Your task to perform on an android device: turn off improve location accuracy Image 0: 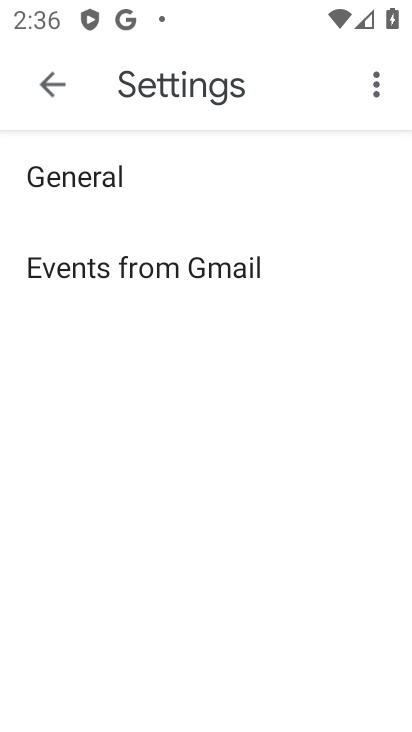
Step 0: press back button
Your task to perform on an android device: turn off improve location accuracy Image 1: 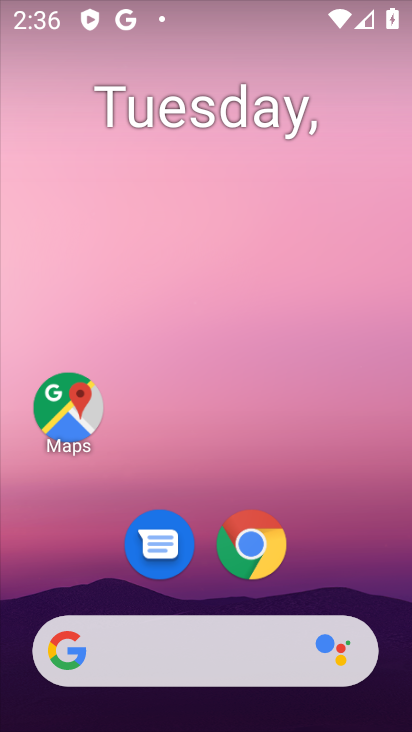
Step 1: drag from (218, 607) to (323, 23)
Your task to perform on an android device: turn off improve location accuracy Image 2: 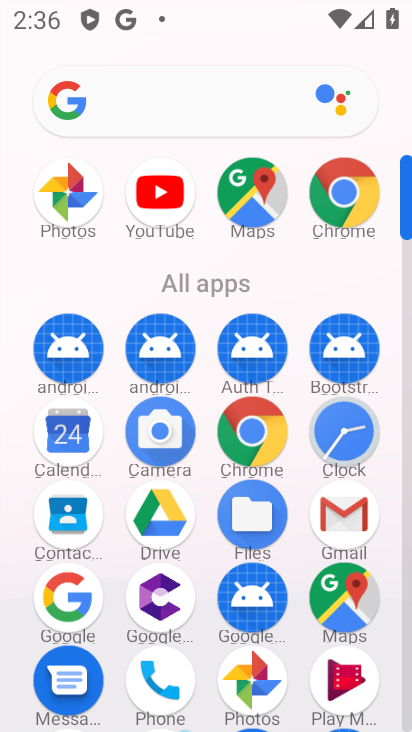
Step 2: drag from (177, 636) to (324, 99)
Your task to perform on an android device: turn off improve location accuracy Image 3: 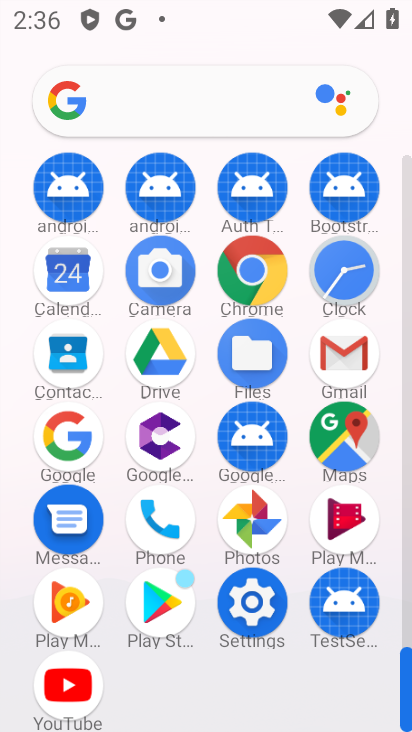
Step 3: click (247, 607)
Your task to perform on an android device: turn off improve location accuracy Image 4: 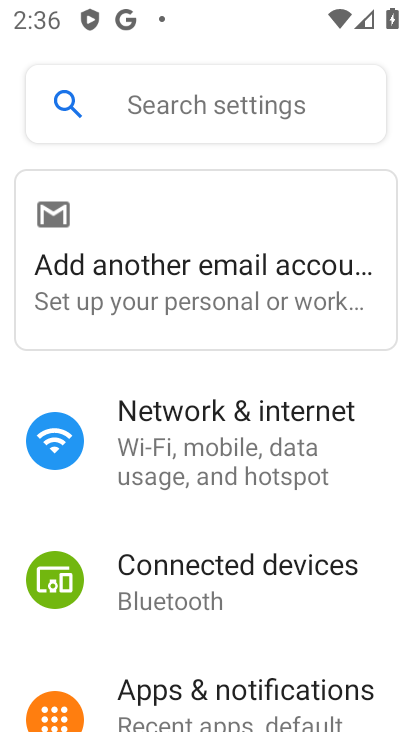
Step 4: drag from (157, 690) to (326, 89)
Your task to perform on an android device: turn off improve location accuracy Image 5: 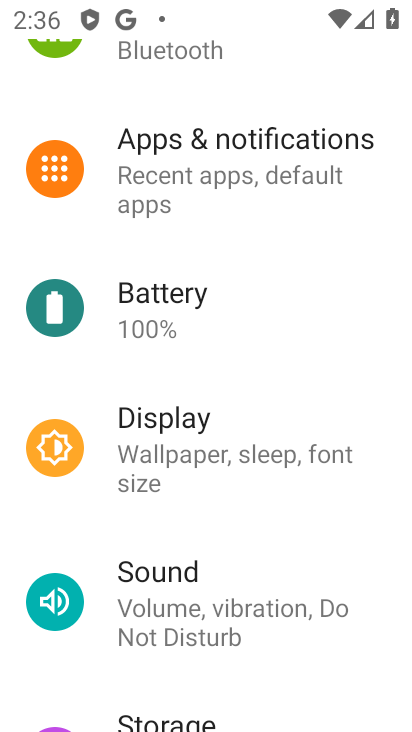
Step 5: drag from (182, 682) to (307, 157)
Your task to perform on an android device: turn off improve location accuracy Image 6: 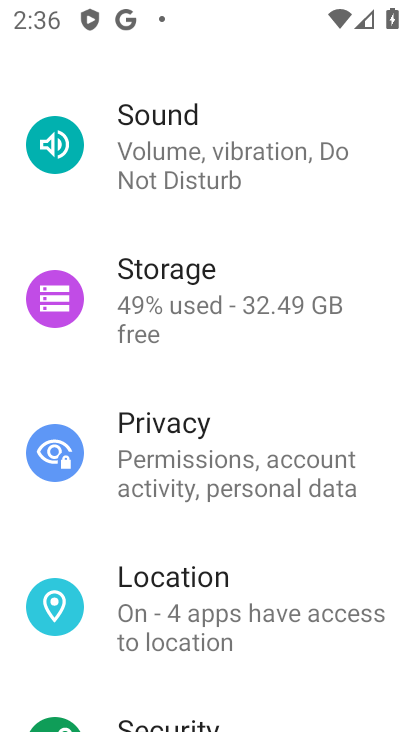
Step 6: click (192, 598)
Your task to perform on an android device: turn off improve location accuracy Image 7: 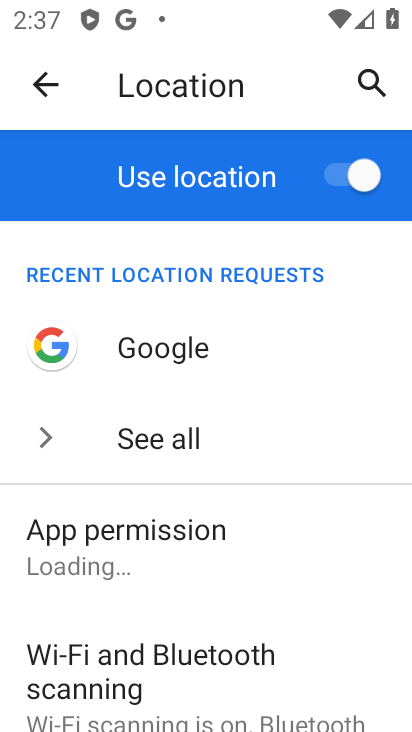
Step 7: drag from (153, 639) to (291, 158)
Your task to perform on an android device: turn off improve location accuracy Image 8: 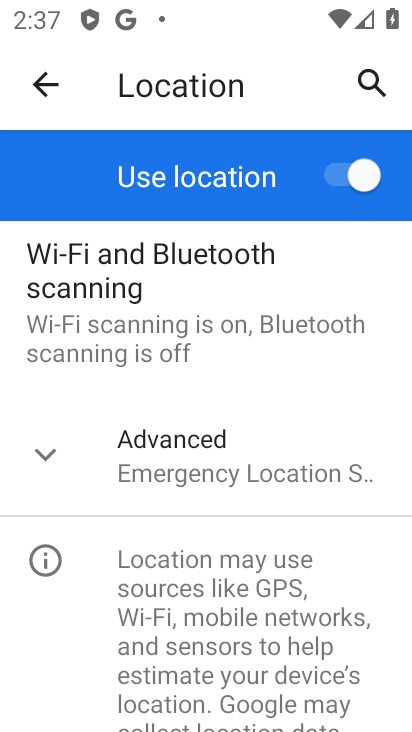
Step 8: click (196, 460)
Your task to perform on an android device: turn off improve location accuracy Image 9: 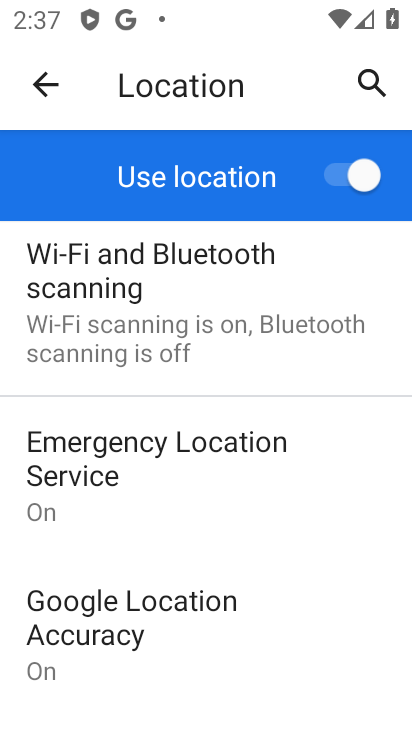
Step 9: click (151, 615)
Your task to perform on an android device: turn off improve location accuracy Image 10: 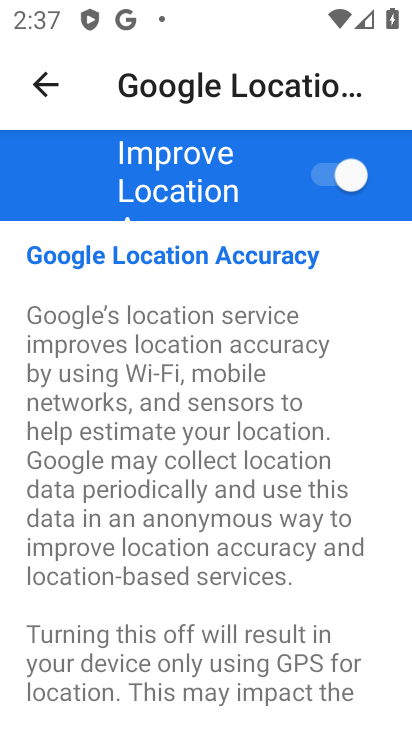
Step 10: click (327, 165)
Your task to perform on an android device: turn off improve location accuracy Image 11: 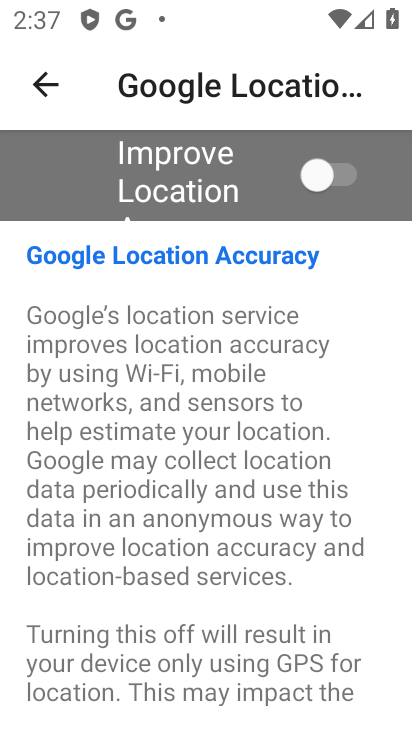
Step 11: task complete